Your task to perform on an android device: Set the phone to "Do not disturb". Image 0: 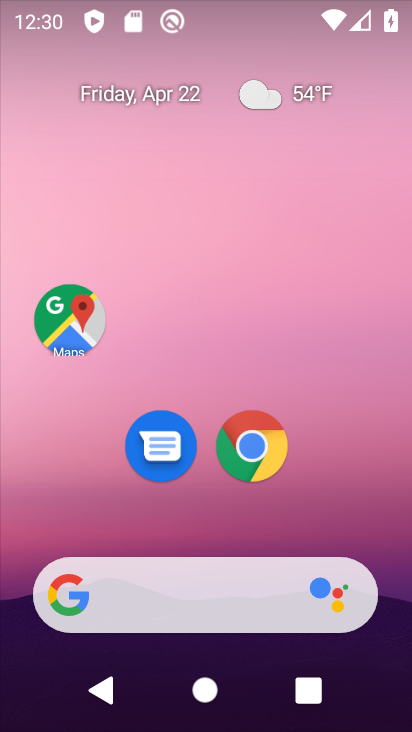
Step 0: drag from (402, 537) to (237, 171)
Your task to perform on an android device: Set the phone to "Do not disturb". Image 1: 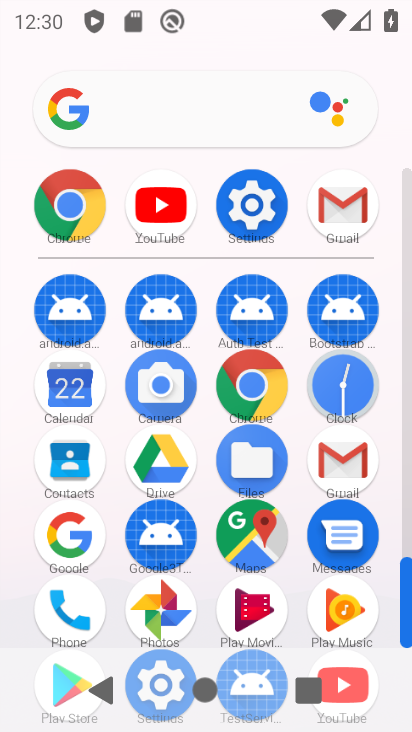
Step 1: click (245, 222)
Your task to perform on an android device: Set the phone to "Do not disturb". Image 2: 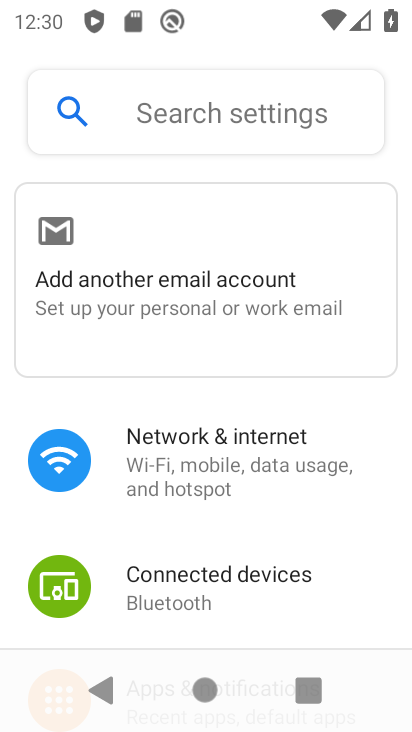
Step 2: drag from (241, 586) to (269, 235)
Your task to perform on an android device: Set the phone to "Do not disturb". Image 3: 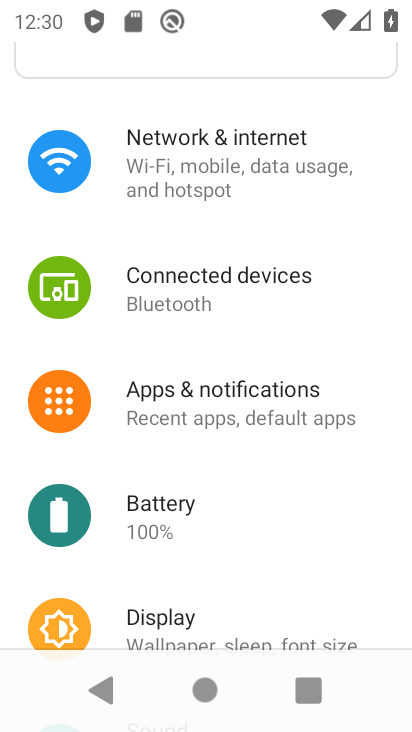
Step 3: drag from (272, 552) to (283, 245)
Your task to perform on an android device: Set the phone to "Do not disturb". Image 4: 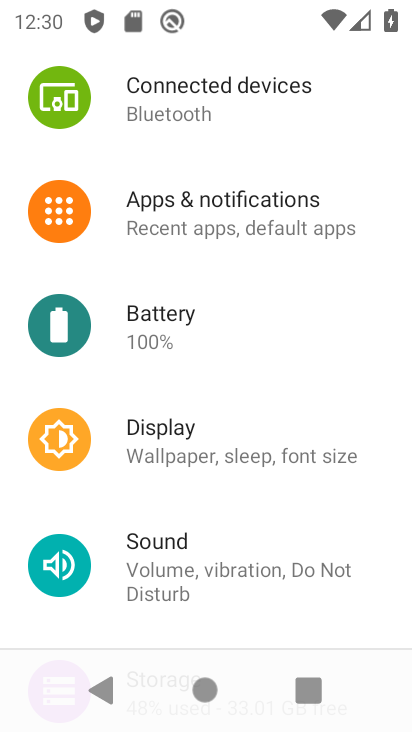
Step 4: click (314, 575)
Your task to perform on an android device: Set the phone to "Do not disturb". Image 5: 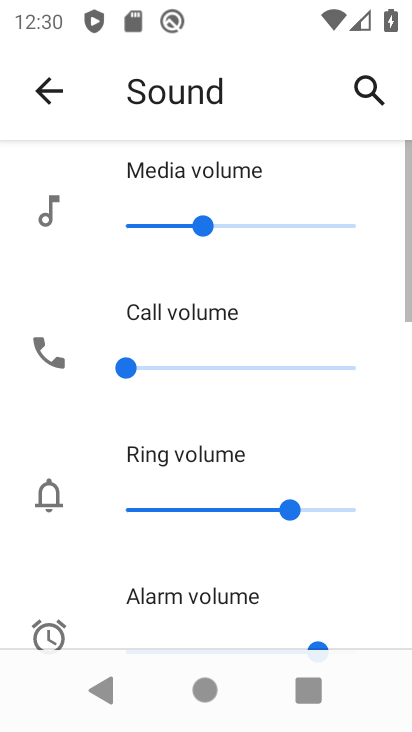
Step 5: drag from (314, 575) to (337, 106)
Your task to perform on an android device: Set the phone to "Do not disturb". Image 6: 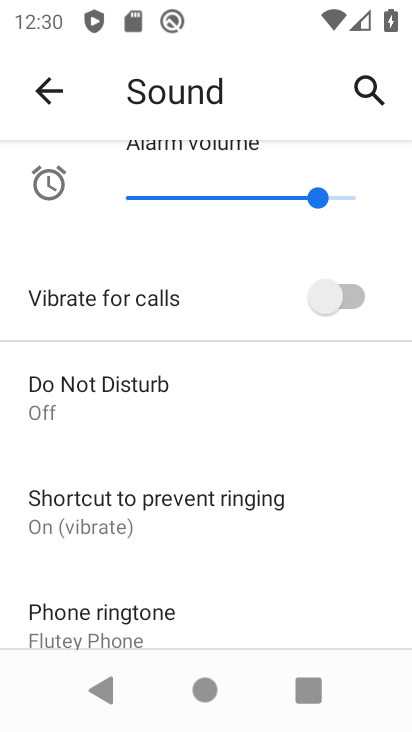
Step 6: click (298, 379)
Your task to perform on an android device: Set the phone to "Do not disturb". Image 7: 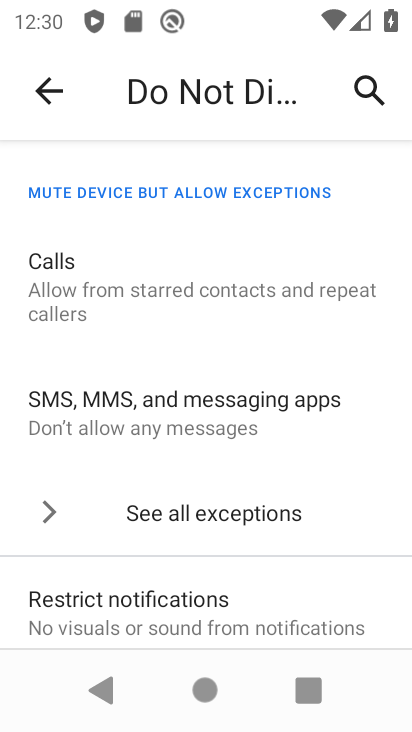
Step 7: drag from (270, 550) to (250, 192)
Your task to perform on an android device: Set the phone to "Do not disturb". Image 8: 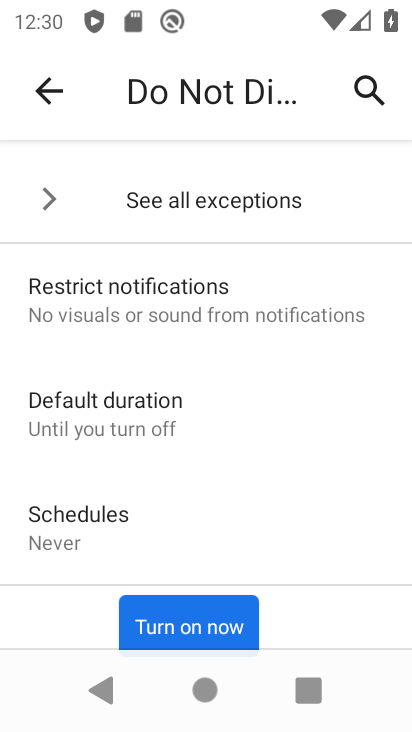
Step 8: click (215, 606)
Your task to perform on an android device: Set the phone to "Do not disturb". Image 9: 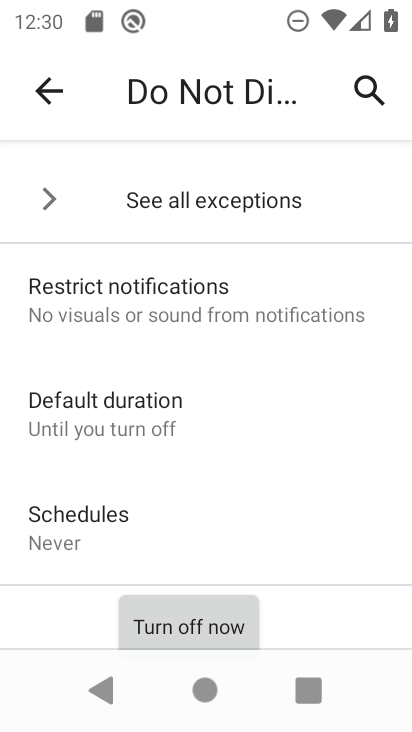
Step 9: task complete